Your task to perform on an android device: turn on bluetooth scan Image 0: 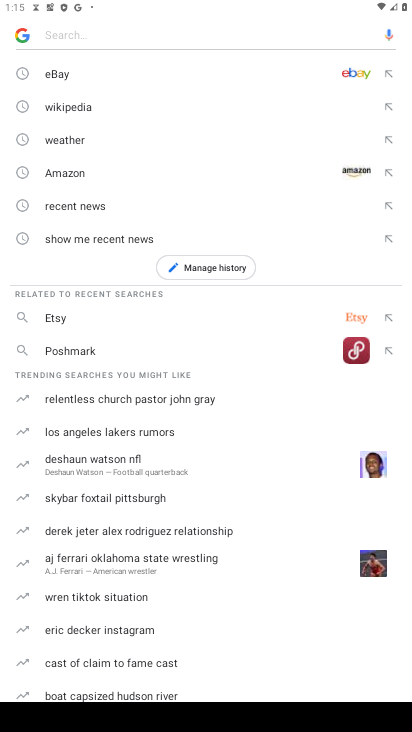
Step 0: task complete